Your task to perform on an android device: What's the weather going to be tomorrow? Image 0: 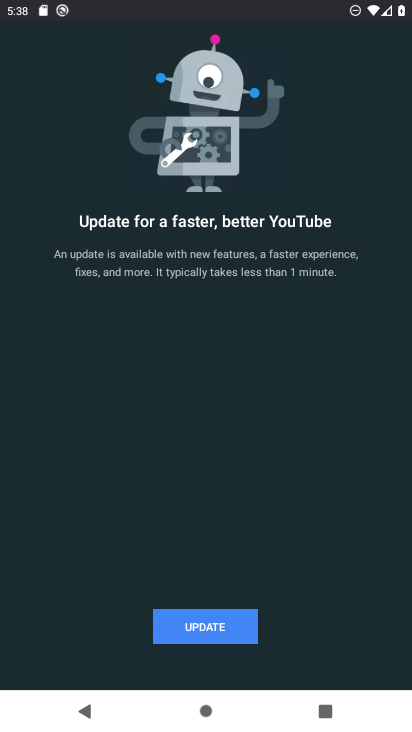
Step 0: press home button
Your task to perform on an android device: What's the weather going to be tomorrow? Image 1: 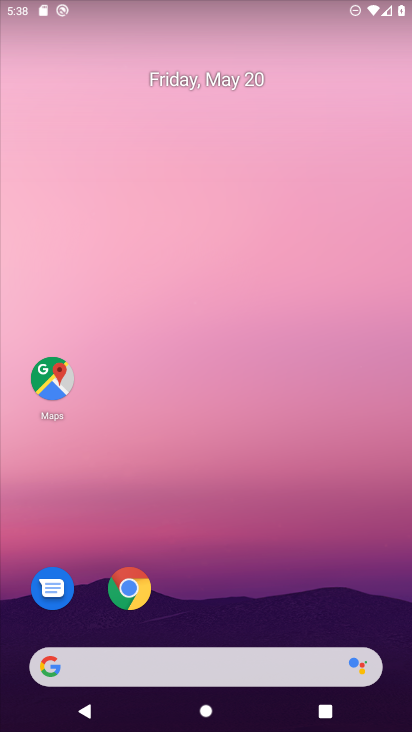
Step 1: click (193, 594)
Your task to perform on an android device: What's the weather going to be tomorrow? Image 2: 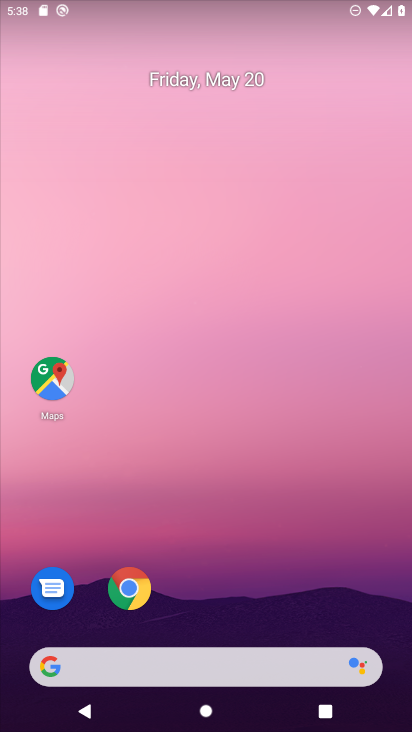
Step 2: click (190, 660)
Your task to perform on an android device: What's the weather going to be tomorrow? Image 3: 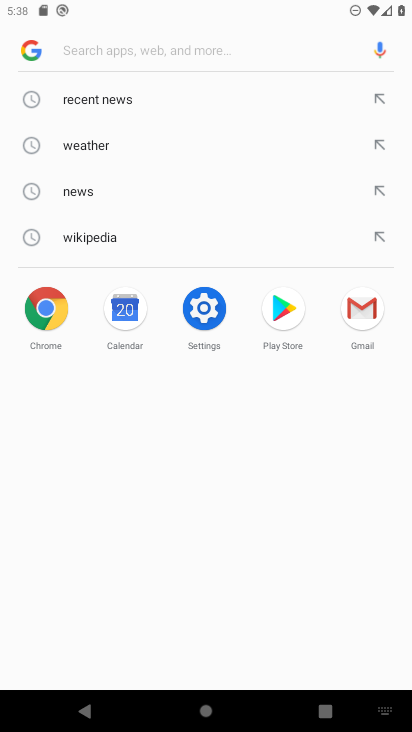
Step 3: click (117, 152)
Your task to perform on an android device: What's the weather going to be tomorrow? Image 4: 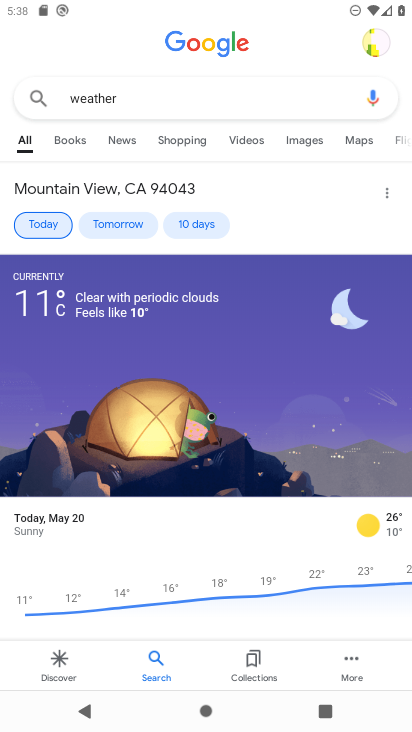
Step 4: click (136, 227)
Your task to perform on an android device: What's the weather going to be tomorrow? Image 5: 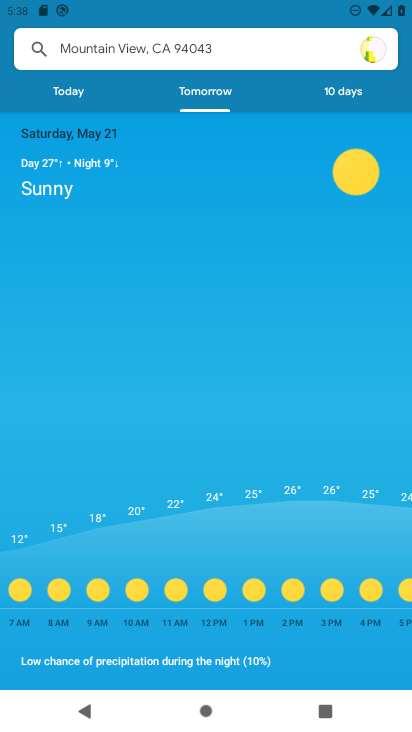
Step 5: task complete